Your task to perform on an android device: star an email in the gmail app Image 0: 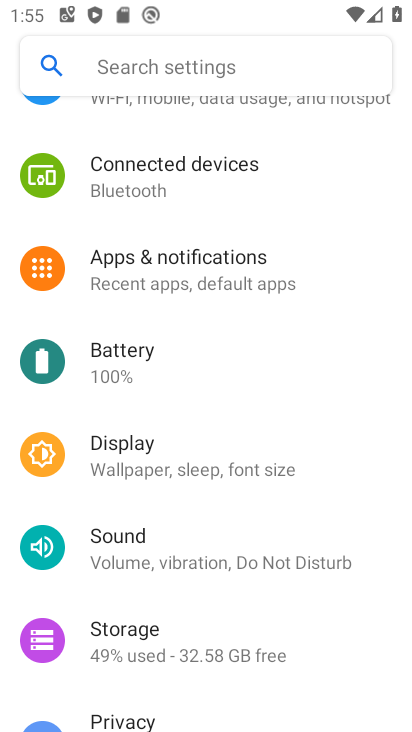
Step 0: press home button
Your task to perform on an android device: star an email in the gmail app Image 1: 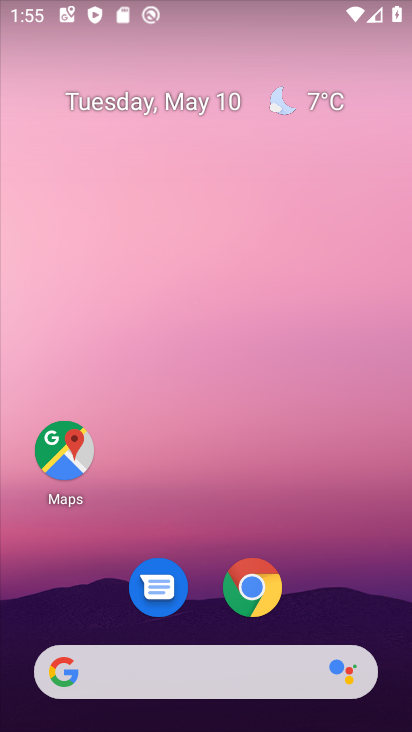
Step 1: drag from (360, 539) to (315, 67)
Your task to perform on an android device: star an email in the gmail app Image 2: 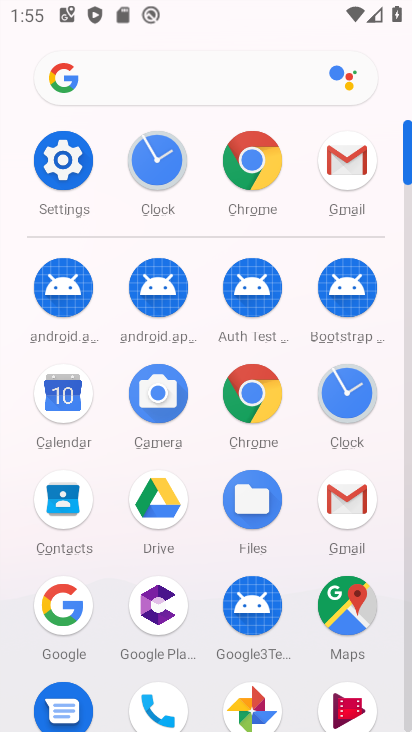
Step 2: click (340, 490)
Your task to perform on an android device: star an email in the gmail app Image 3: 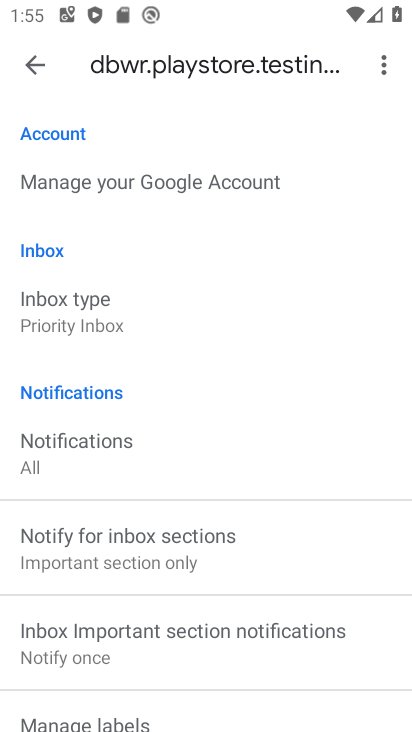
Step 3: drag from (95, 473) to (102, 239)
Your task to perform on an android device: star an email in the gmail app Image 4: 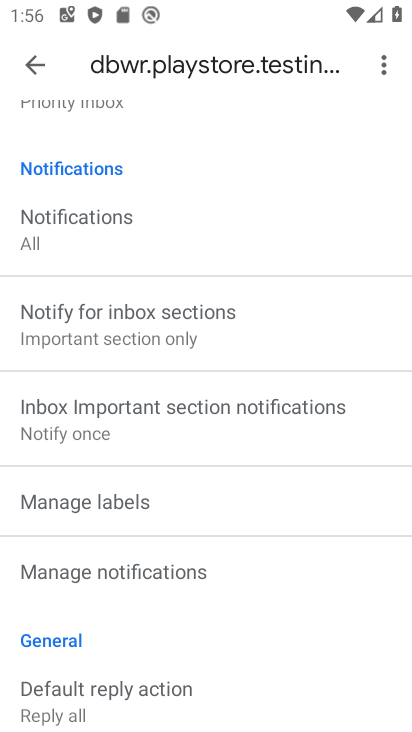
Step 4: drag from (127, 229) to (126, 302)
Your task to perform on an android device: star an email in the gmail app Image 5: 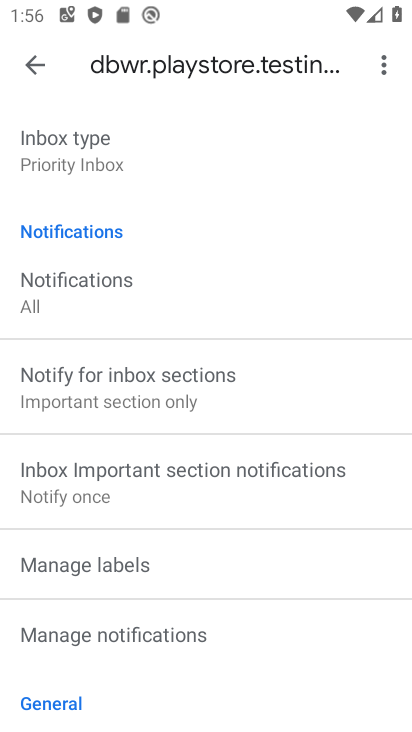
Step 5: click (44, 71)
Your task to perform on an android device: star an email in the gmail app Image 6: 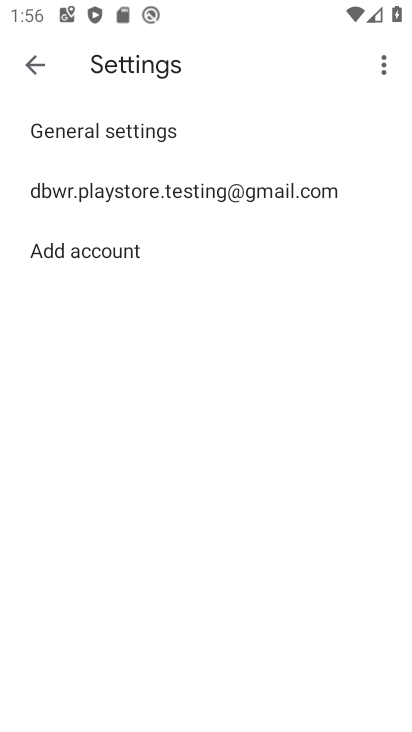
Step 6: click (44, 71)
Your task to perform on an android device: star an email in the gmail app Image 7: 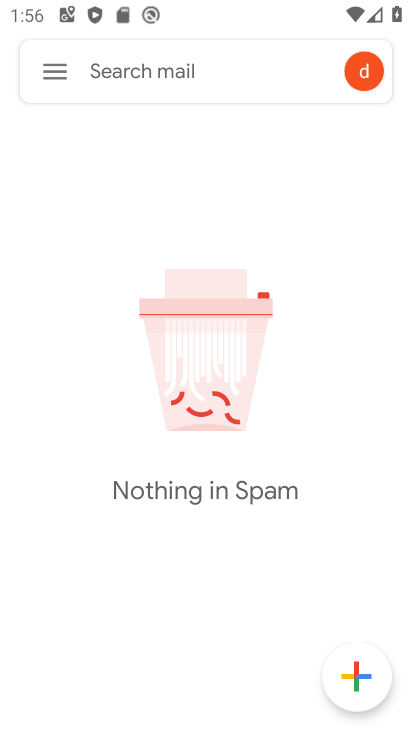
Step 7: click (45, 72)
Your task to perform on an android device: star an email in the gmail app Image 8: 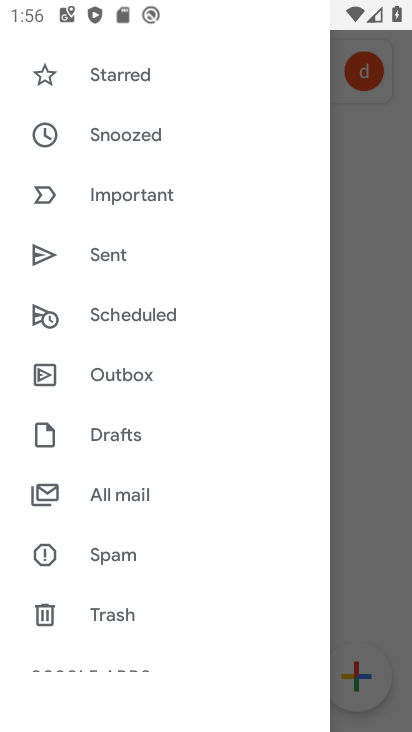
Step 8: click (120, 485)
Your task to perform on an android device: star an email in the gmail app Image 9: 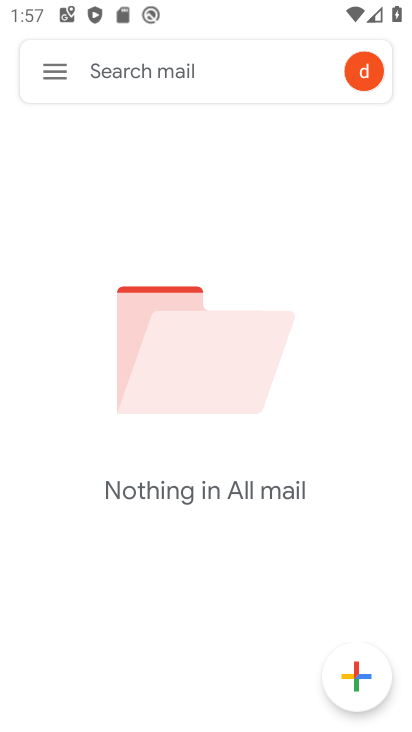
Step 9: task complete